Your task to perform on an android device: Search for vegetarian restaurants on Maps Image 0: 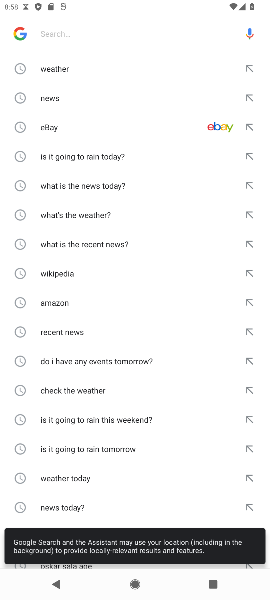
Step 0: press home button
Your task to perform on an android device: Search for vegetarian restaurants on Maps Image 1: 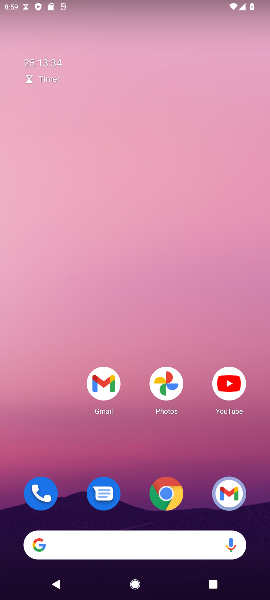
Step 1: drag from (190, 546) to (150, 106)
Your task to perform on an android device: Search for vegetarian restaurants on Maps Image 2: 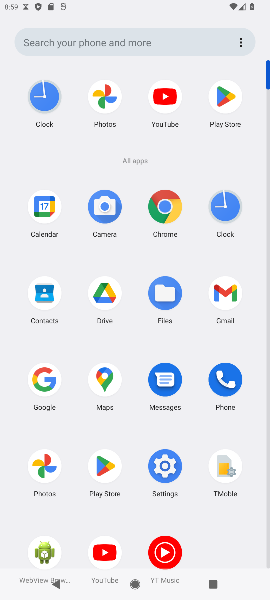
Step 2: click (103, 379)
Your task to perform on an android device: Search for vegetarian restaurants on Maps Image 3: 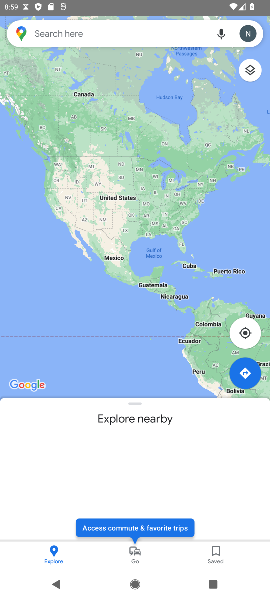
Step 3: click (95, 24)
Your task to perform on an android device: Search for vegetarian restaurants on Maps Image 4: 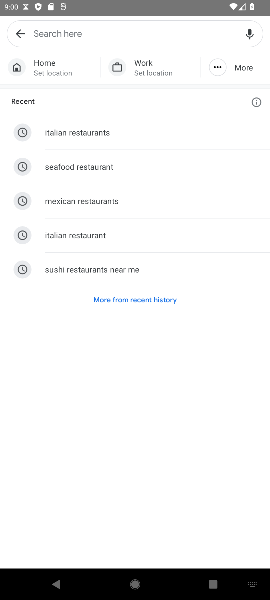
Step 4: type " vegetarian restaurants"
Your task to perform on an android device: Search for vegetarian restaurants on Maps Image 5: 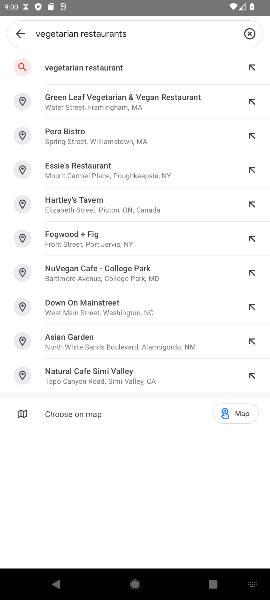
Step 5: click (112, 64)
Your task to perform on an android device: Search for vegetarian restaurants on Maps Image 6: 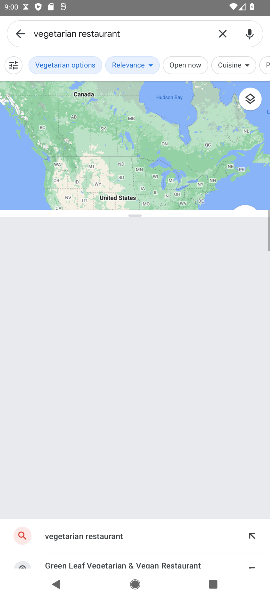
Step 6: task complete